Your task to perform on an android device: turn off data saver in the chrome app Image 0: 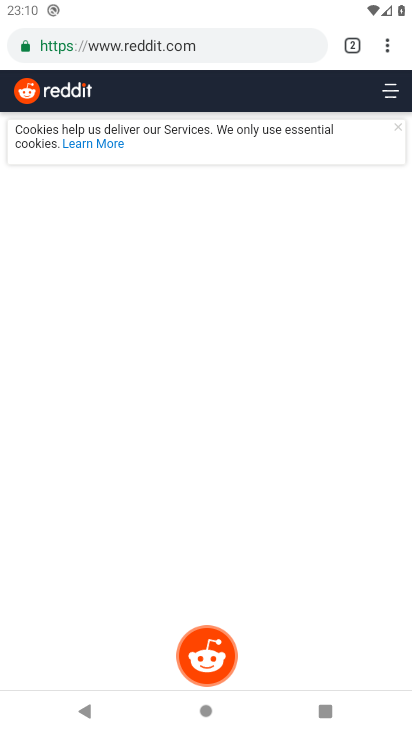
Step 0: press home button
Your task to perform on an android device: turn off data saver in the chrome app Image 1: 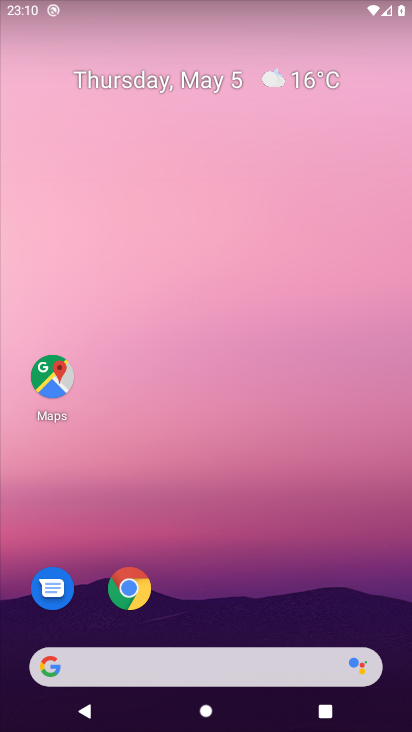
Step 1: click (135, 585)
Your task to perform on an android device: turn off data saver in the chrome app Image 2: 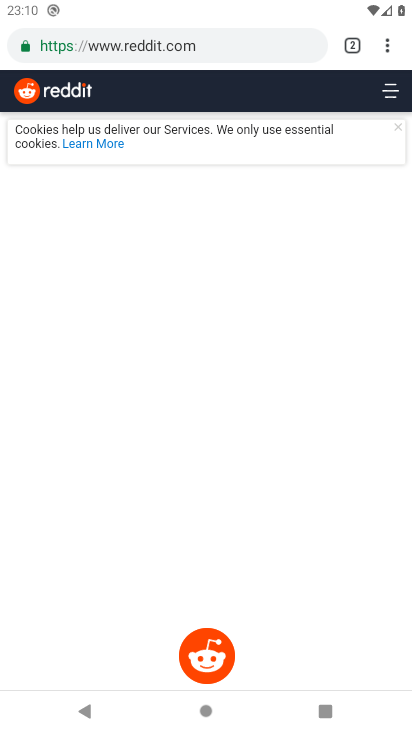
Step 2: drag from (393, 45) to (260, 506)
Your task to perform on an android device: turn off data saver in the chrome app Image 3: 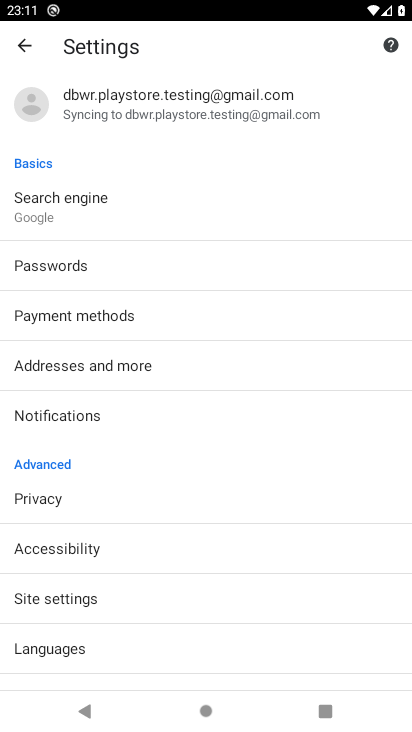
Step 3: drag from (284, 678) to (294, 457)
Your task to perform on an android device: turn off data saver in the chrome app Image 4: 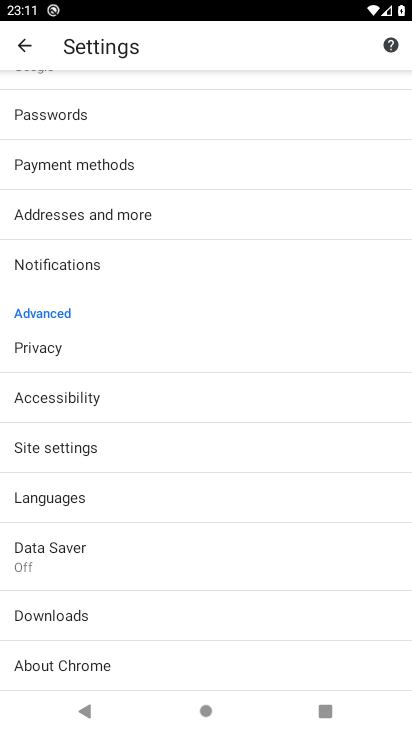
Step 4: click (194, 580)
Your task to perform on an android device: turn off data saver in the chrome app Image 5: 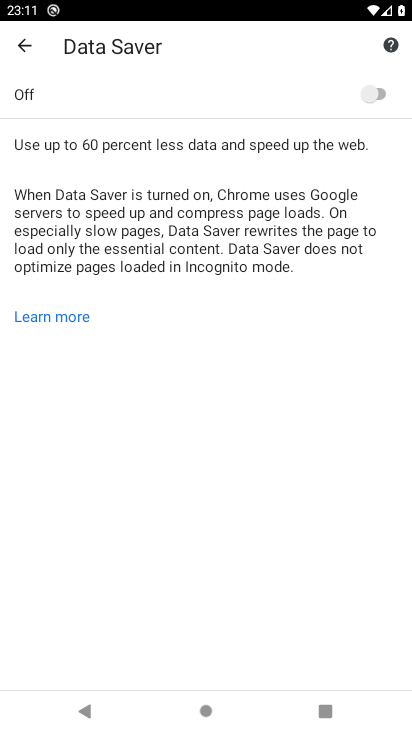
Step 5: task complete